Your task to perform on an android device: toggle notification dots Image 0: 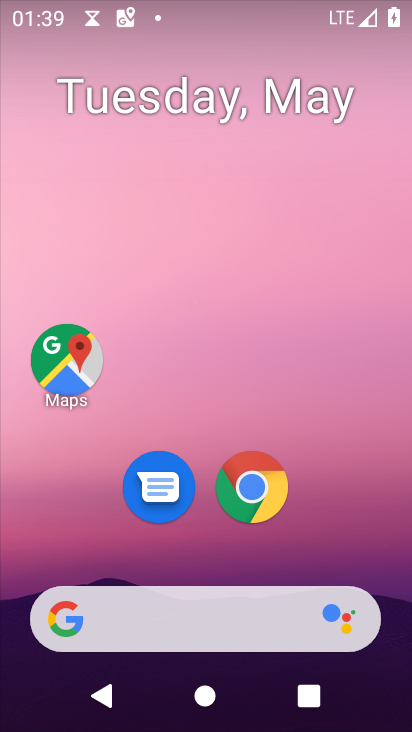
Step 0: click (234, 470)
Your task to perform on an android device: toggle notification dots Image 1: 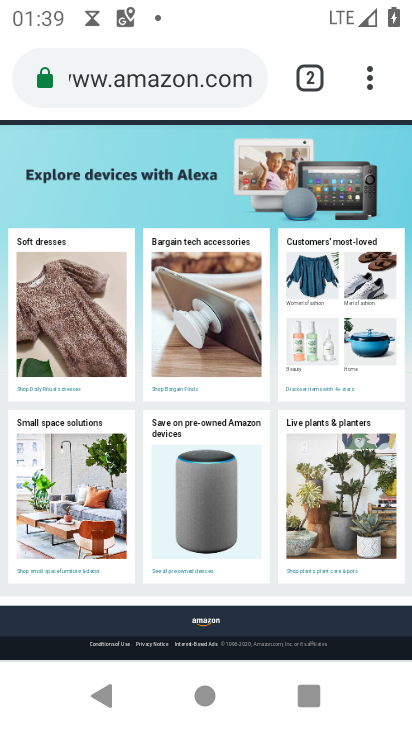
Step 1: click (318, 70)
Your task to perform on an android device: toggle notification dots Image 2: 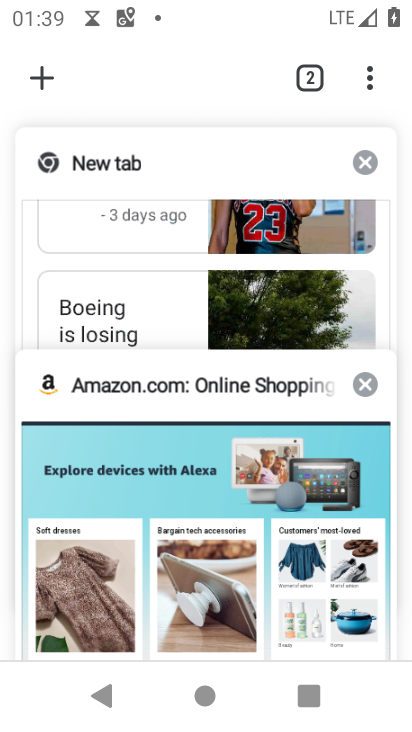
Step 2: click (360, 158)
Your task to perform on an android device: toggle notification dots Image 3: 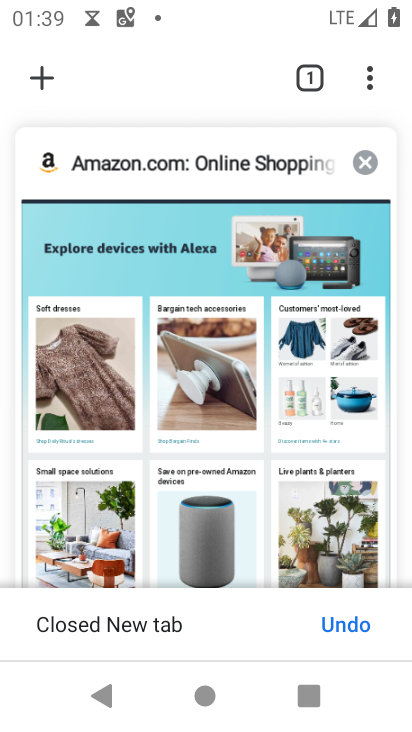
Step 3: click (360, 159)
Your task to perform on an android device: toggle notification dots Image 4: 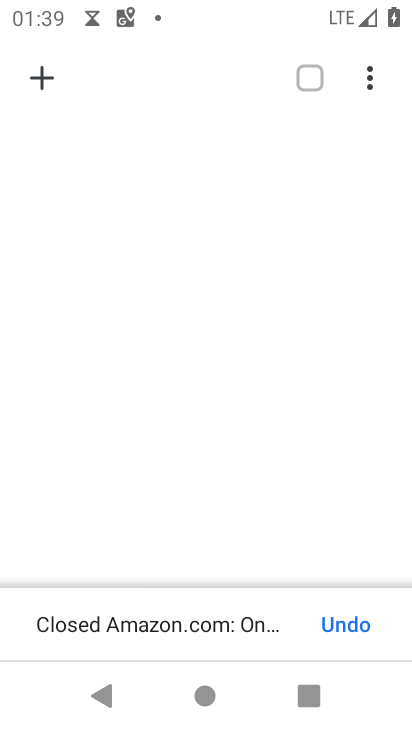
Step 4: click (380, 77)
Your task to perform on an android device: toggle notification dots Image 5: 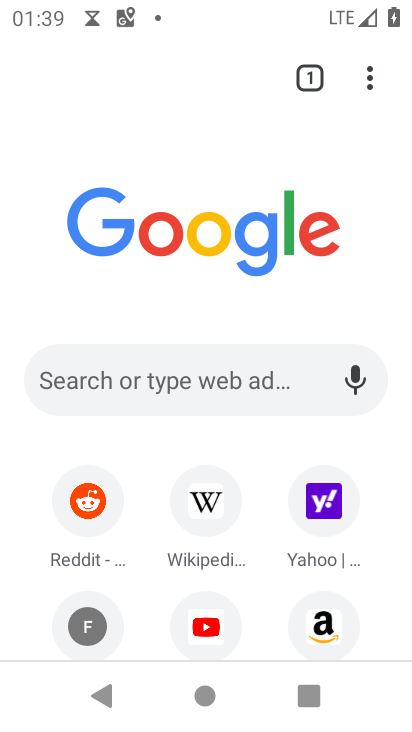
Step 5: click (368, 85)
Your task to perform on an android device: toggle notification dots Image 6: 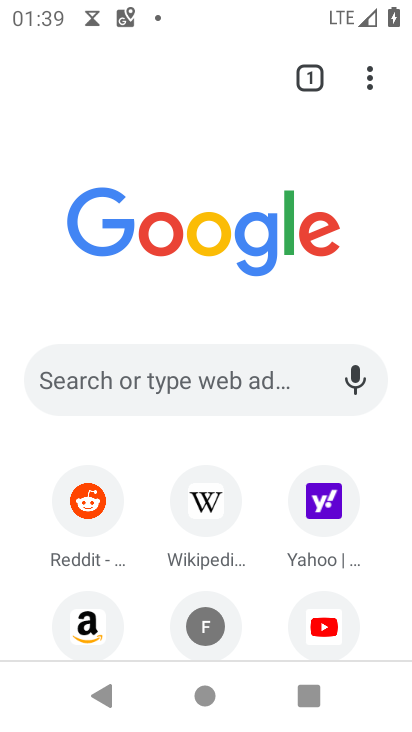
Step 6: click (368, 85)
Your task to perform on an android device: toggle notification dots Image 7: 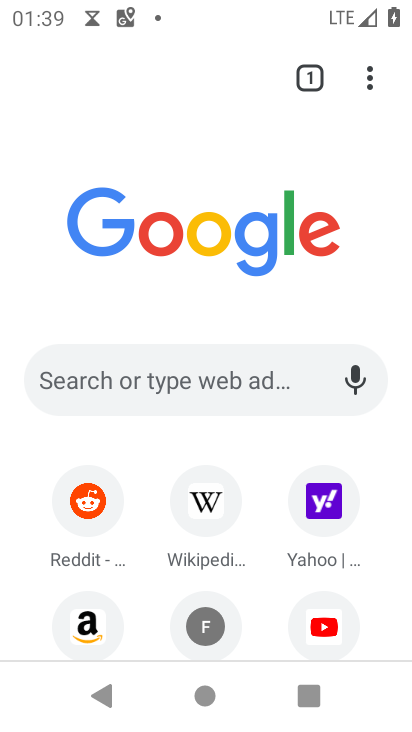
Step 7: click (366, 85)
Your task to perform on an android device: toggle notification dots Image 8: 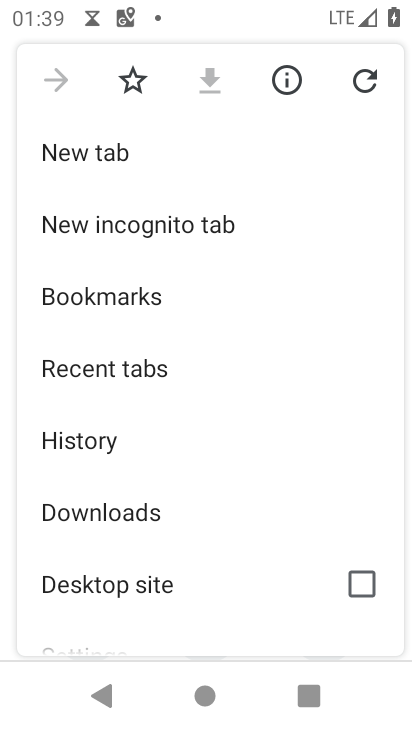
Step 8: drag from (236, 457) to (248, 206)
Your task to perform on an android device: toggle notification dots Image 9: 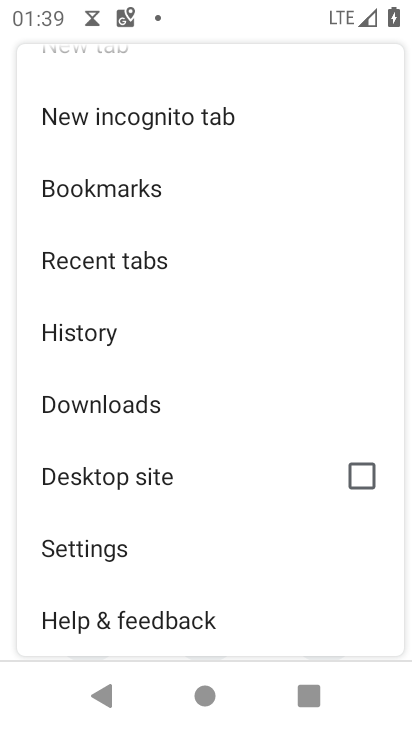
Step 9: click (98, 550)
Your task to perform on an android device: toggle notification dots Image 10: 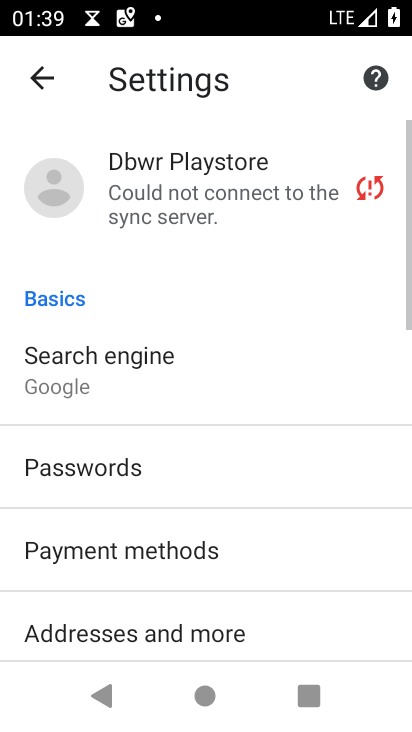
Step 10: drag from (99, 548) to (127, 201)
Your task to perform on an android device: toggle notification dots Image 11: 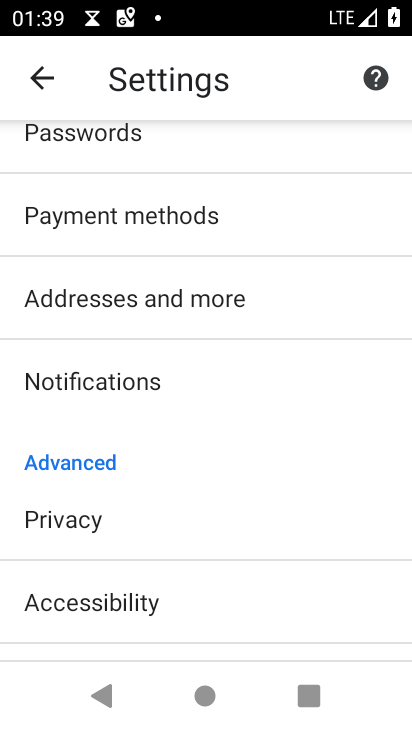
Step 11: drag from (197, 548) to (169, 192)
Your task to perform on an android device: toggle notification dots Image 12: 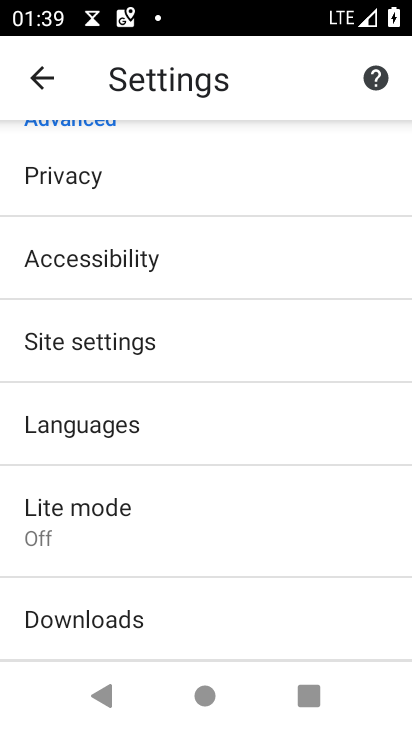
Step 12: drag from (249, 468) to (217, 315)
Your task to perform on an android device: toggle notification dots Image 13: 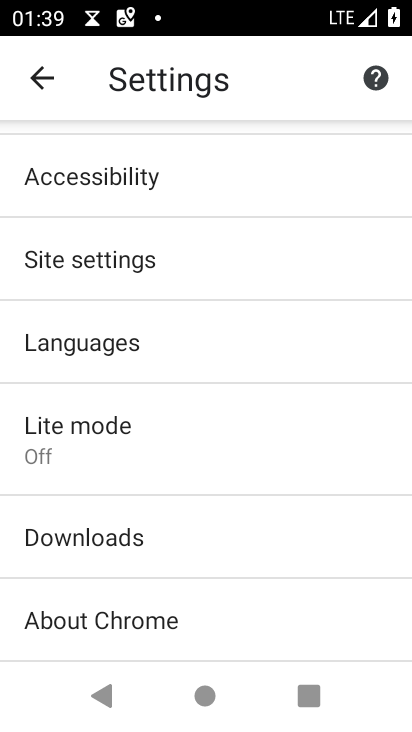
Step 13: click (148, 242)
Your task to perform on an android device: toggle notification dots Image 14: 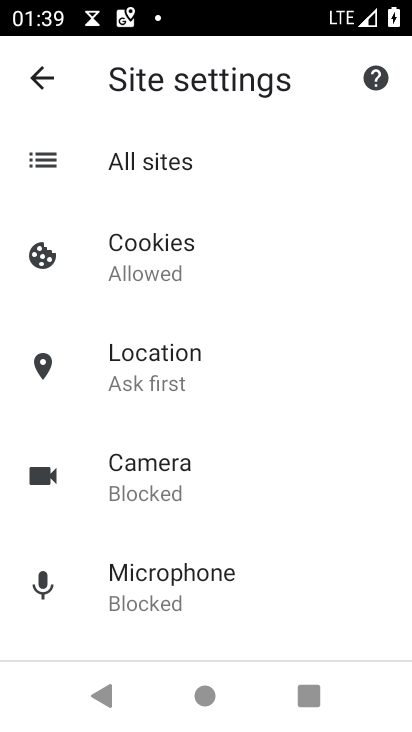
Step 14: drag from (236, 509) to (202, 269)
Your task to perform on an android device: toggle notification dots Image 15: 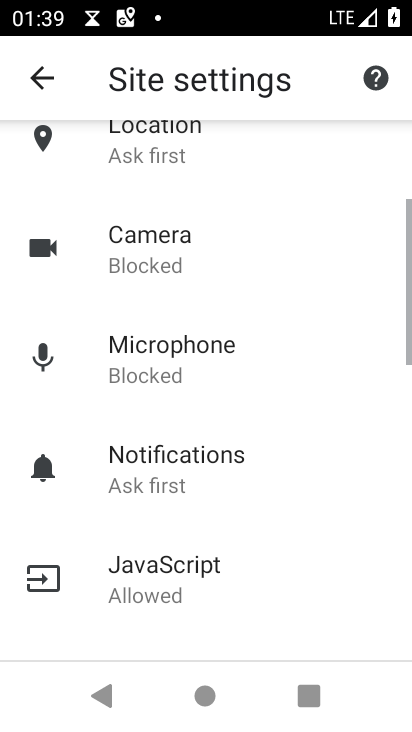
Step 15: drag from (235, 541) to (199, 317)
Your task to perform on an android device: toggle notification dots Image 16: 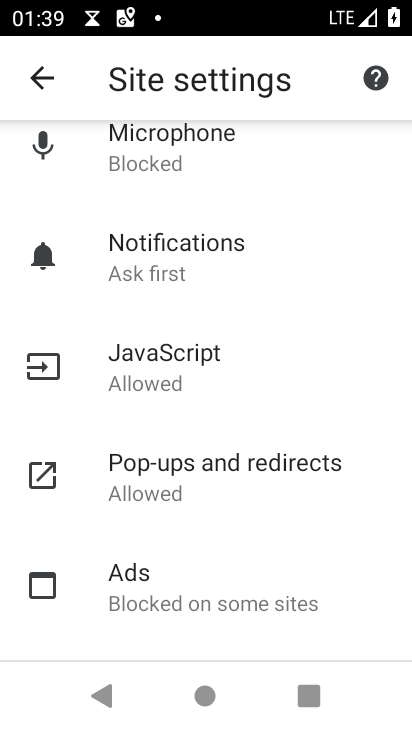
Step 16: drag from (271, 555) to (243, 320)
Your task to perform on an android device: toggle notification dots Image 17: 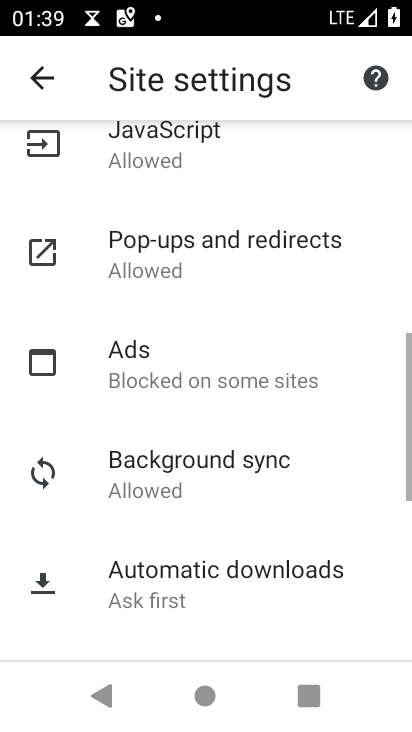
Step 17: drag from (276, 601) to (237, 349)
Your task to perform on an android device: toggle notification dots Image 18: 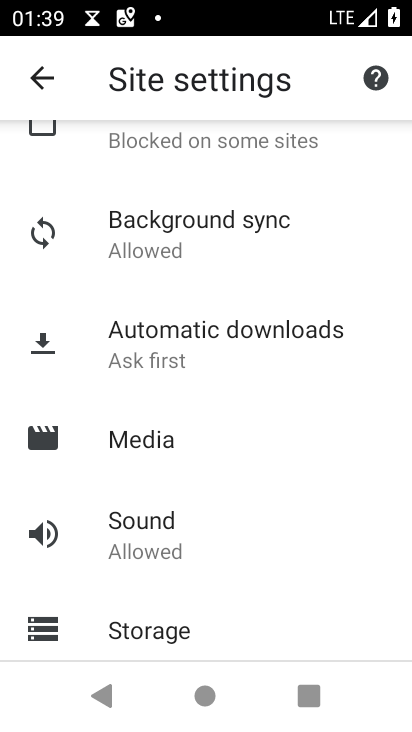
Step 18: drag from (309, 642) to (246, 302)
Your task to perform on an android device: toggle notification dots Image 19: 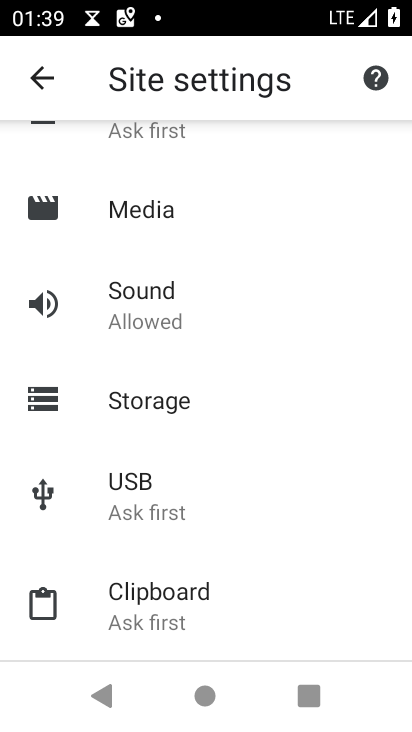
Step 19: drag from (263, 443) to (184, 132)
Your task to perform on an android device: toggle notification dots Image 20: 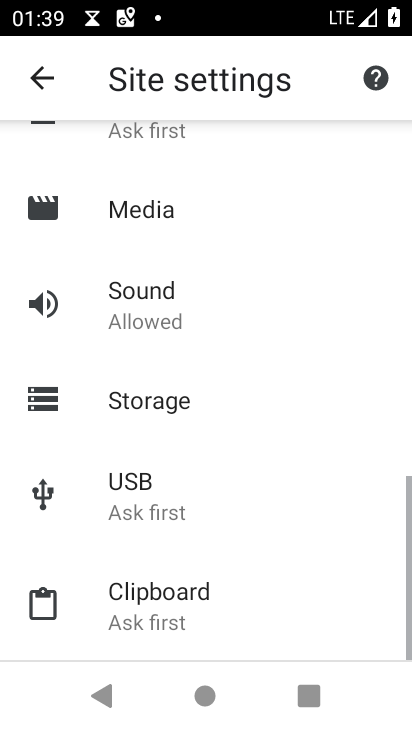
Step 20: drag from (251, 226) to (188, 558)
Your task to perform on an android device: toggle notification dots Image 21: 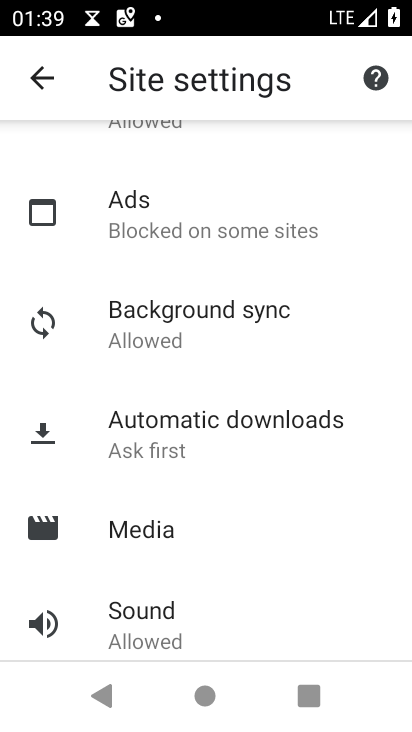
Step 21: drag from (210, 281) to (170, 517)
Your task to perform on an android device: toggle notification dots Image 22: 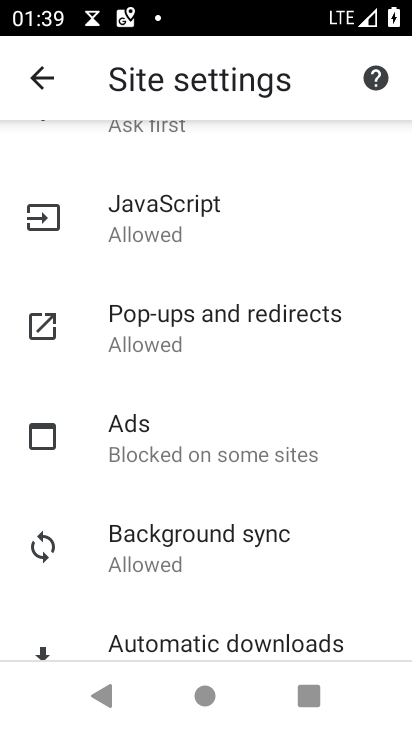
Step 22: click (206, 277)
Your task to perform on an android device: toggle notification dots Image 23: 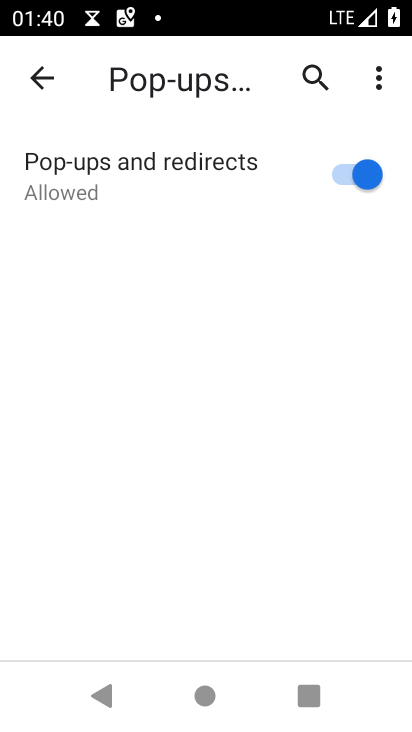
Step 23: click (23, 80)
Your task to perform on an android device: toggle notification dots Image 24: 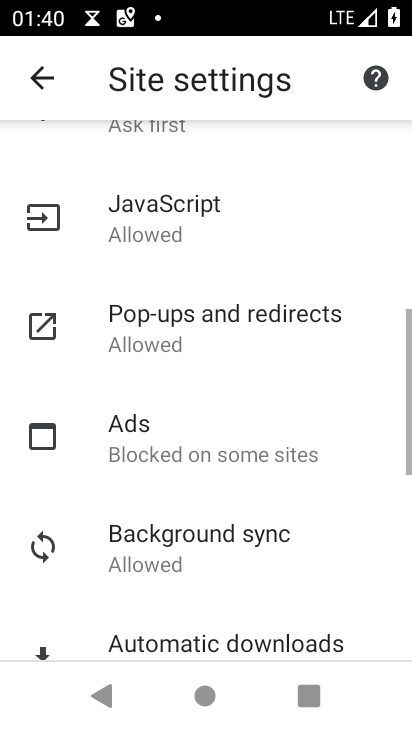
Step 24: drag from (136, 222) to (112, 488)
Your task to perform on an android device: toggle notification dots Image 25: 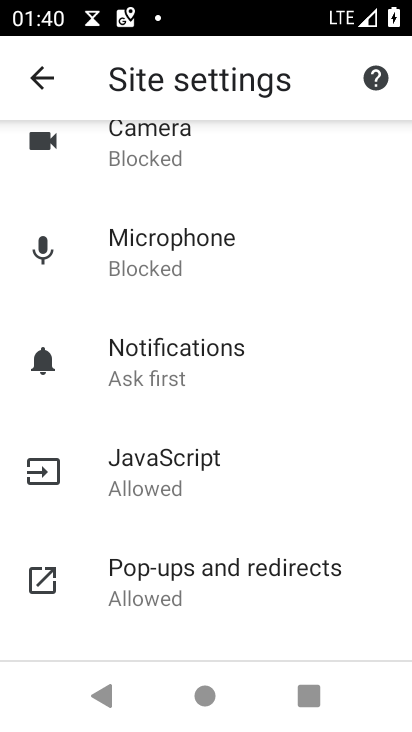
Step 25: drag from (151, 272) to (130, 532)
Your task to perform on an android device: toggle notification dots Image 26: 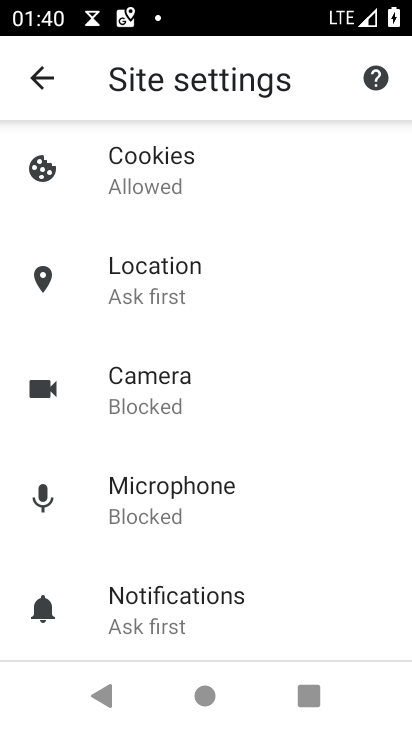
Step 26: drag from (176, 271) to (200, 536)
Your task to perform on an android device: toggle notification dots Image 27: 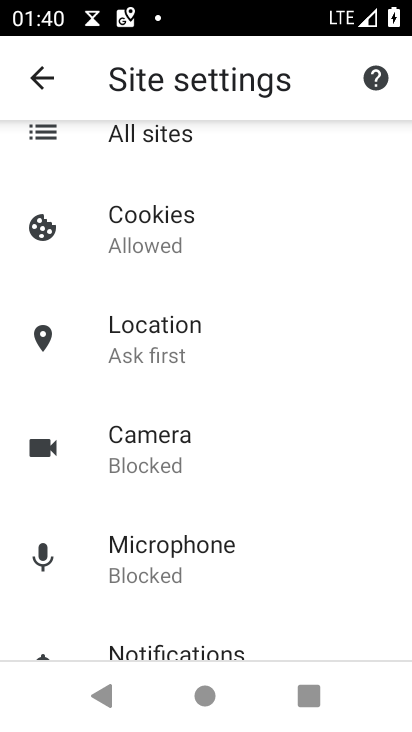
Step 27: click (243, 149)
Your task to perform on an android device: toggle notification dots Image 28: 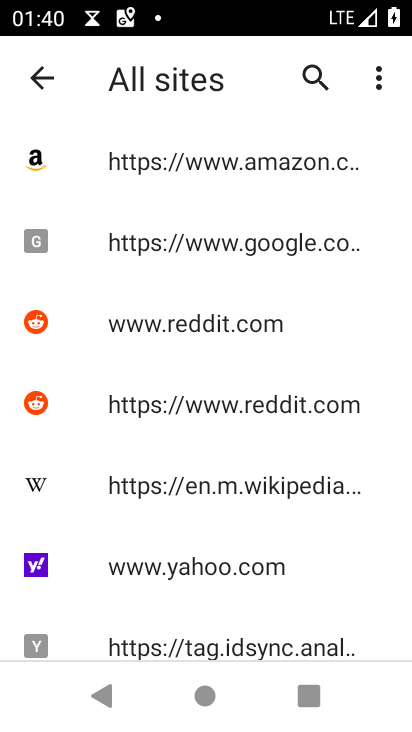
Step 28: click (62, 75)
Your task to perform on an android device: toggle notification dots Image 29: 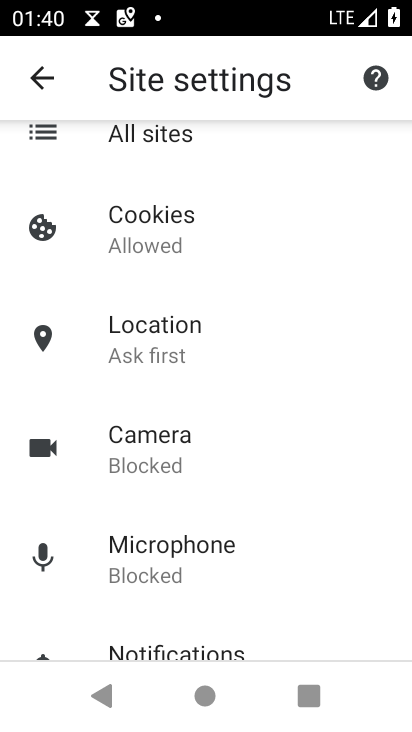
Step 29: press home button
Your task to perform on an android device: toggle notification dots Image 30: 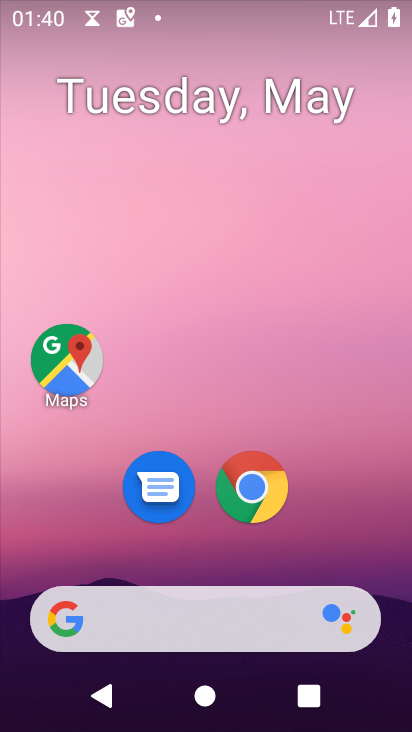
Step 30: drag from (149, 404) to (124, 115)
Your task to perform on an android device: toggle notification dots Image 31: 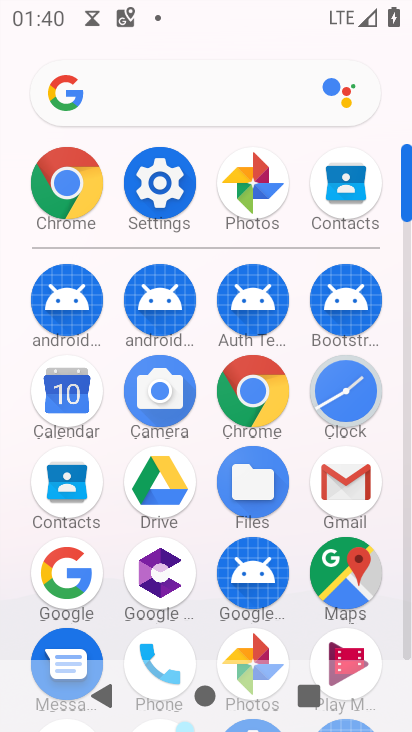
Step 31: drag from (199, 637) to (167, 372)
Your task to perform on an android device: toggle notification dots Image 32: 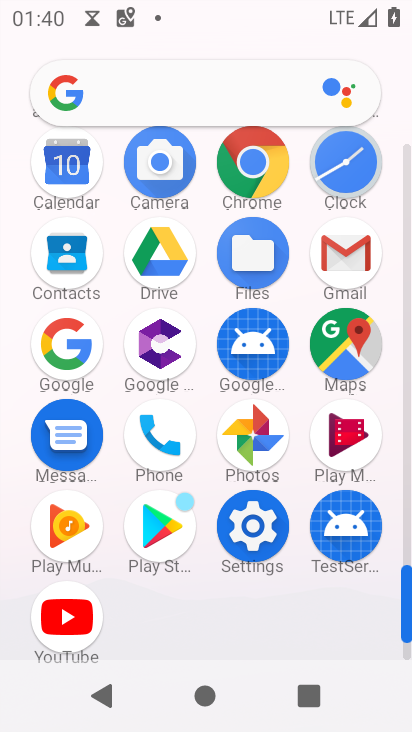
Step 32: click (59, 360)
Your task to perform on an android device: toggle notification dots Image 33: 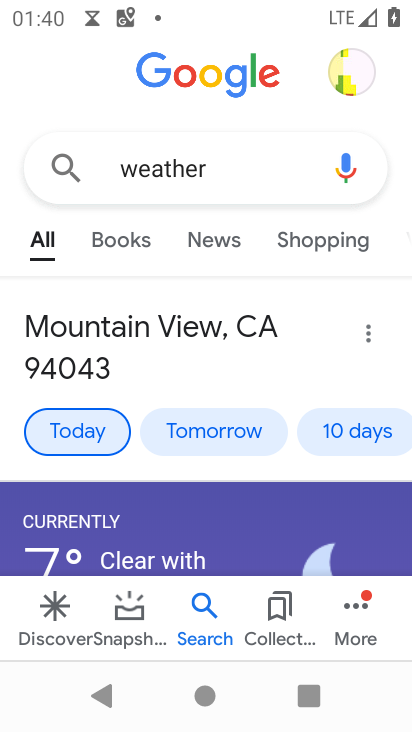
Step 33: click (220, 164)
Your task to perform on an android device: toggle notification dots Image 34: 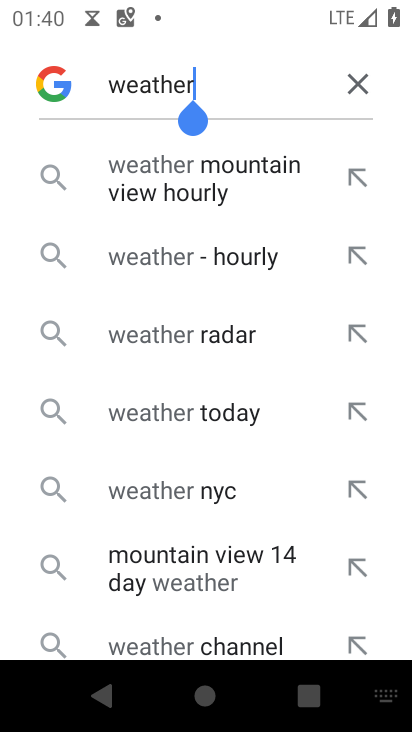
Step 34: click (348, 94)
Your task to perform on an android device: toggle notification dots Image 35: 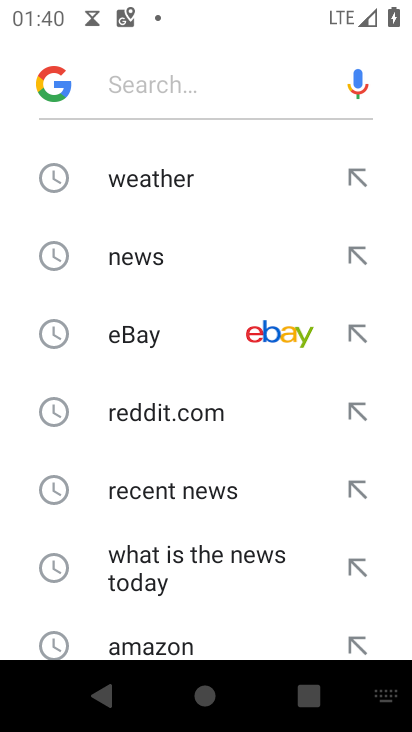
Step 35: press back button
Your task to perform on an android device: toggle notification dots Image 36: 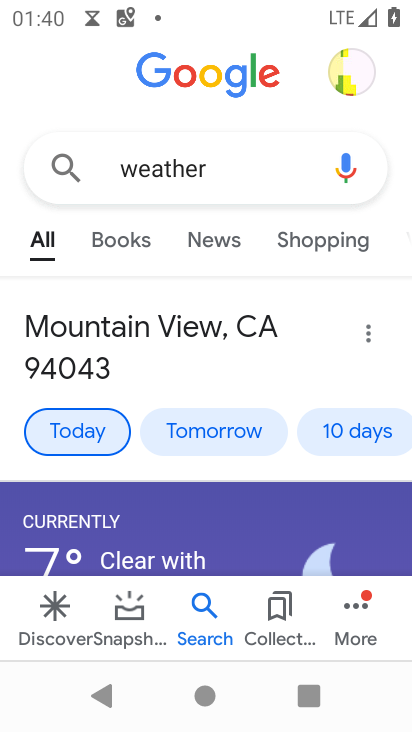
Step 36: click (332, 71)
Your task to perform on an android device: toggle notification dots Image 37: 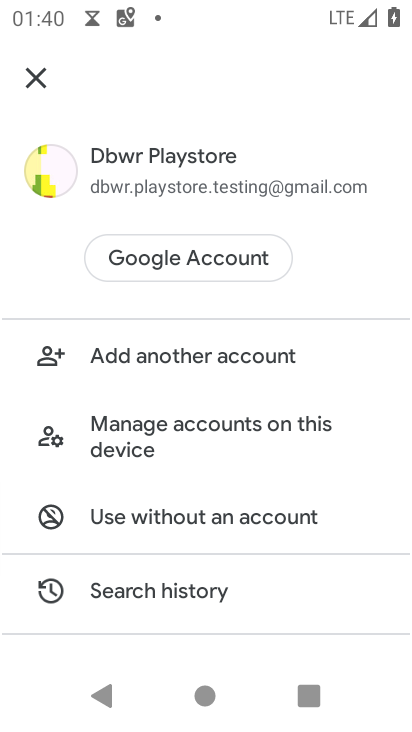
Step 37: task complete